Your task to perform on an android device: Open Wikipedia Image 0: 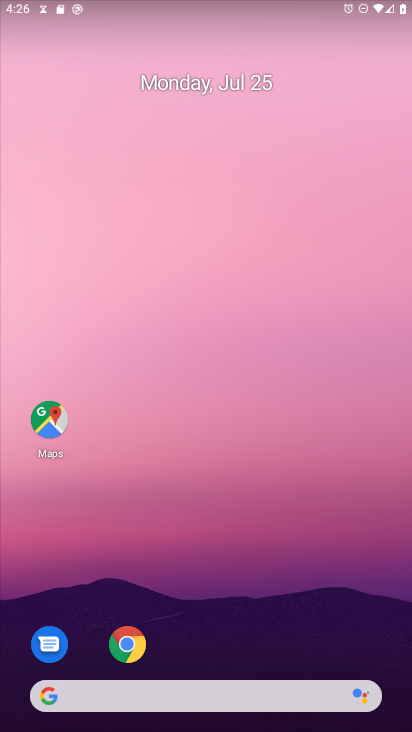
Step 0: press home button
Your task to perform on an android device: Open Wikipedia Image 1: 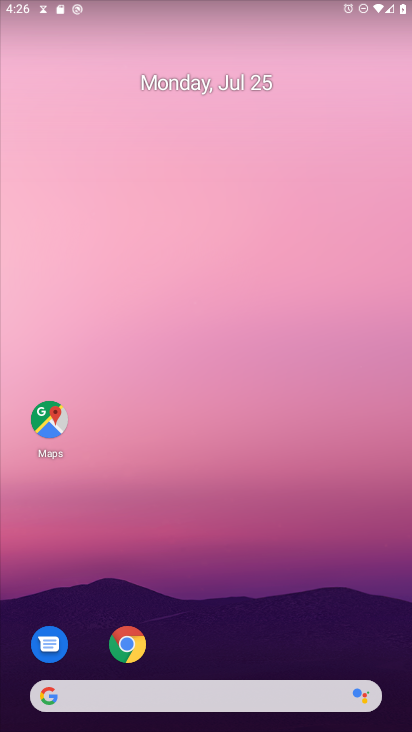
Step 1: click (47, 702)
Your task to perform on an android device: Open Wikipedia Image 2: 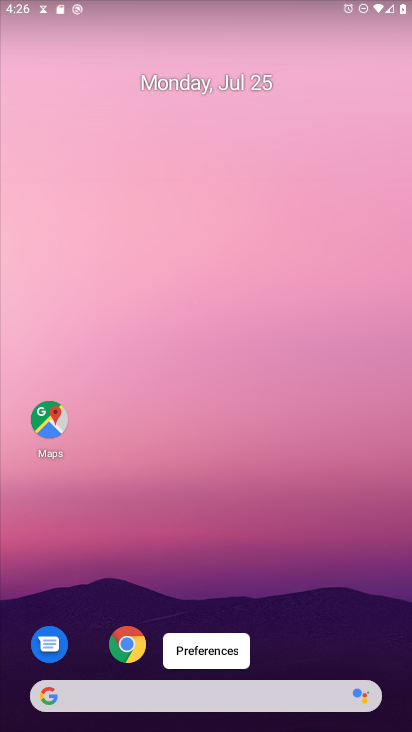
Step 2: click (45, 690)
Your task to perform on an android device: Open Wikipedia Image 3: 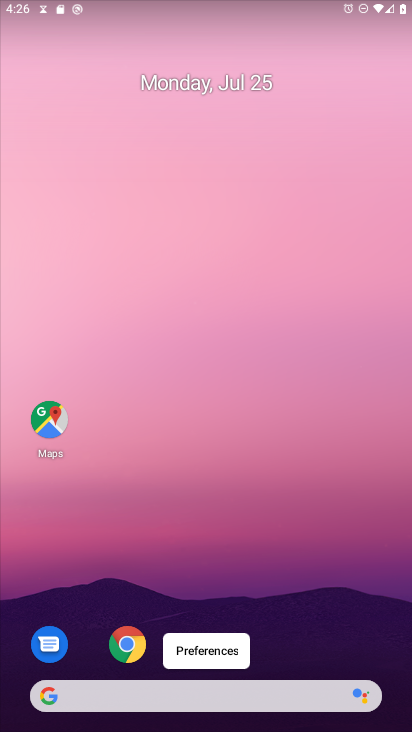
Step 3: click (50, 698)
Your task to perform on an android device: Open Wikipedia Image 4: 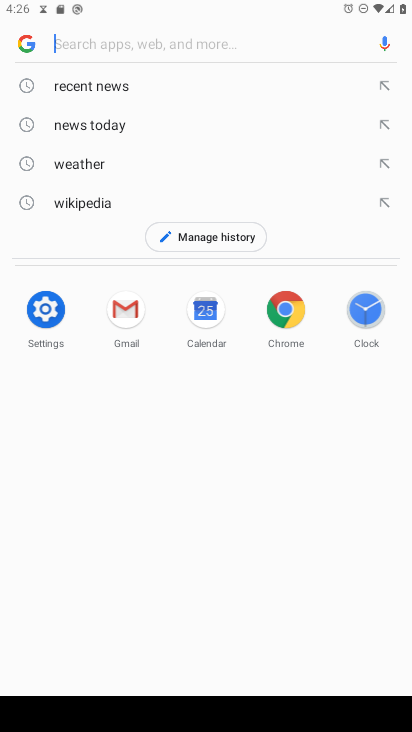
Step 4: type "Wikipedia"
Your task to perform on an android device: Open Wikipedia Image 5: 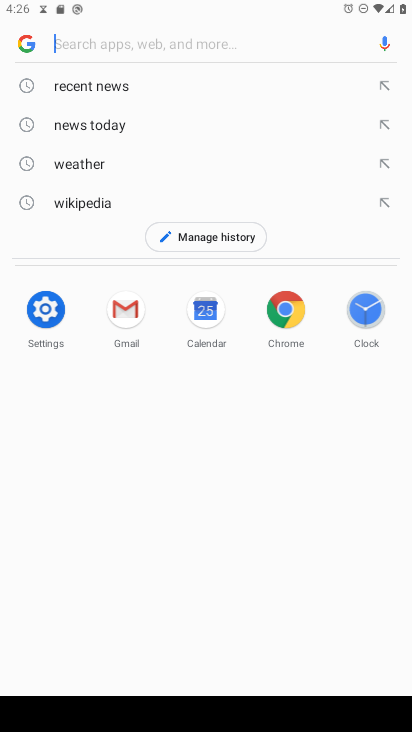
Step 5: click (112, 45)
Your task to perform on an android device: Open Wikipedia Image 6: 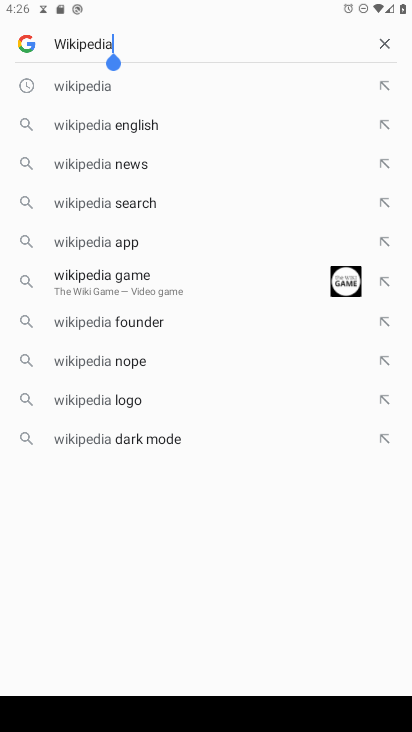
Step 6: click (105, 81)
Your task to perform on an android device: Open Wikipedia Image 7: 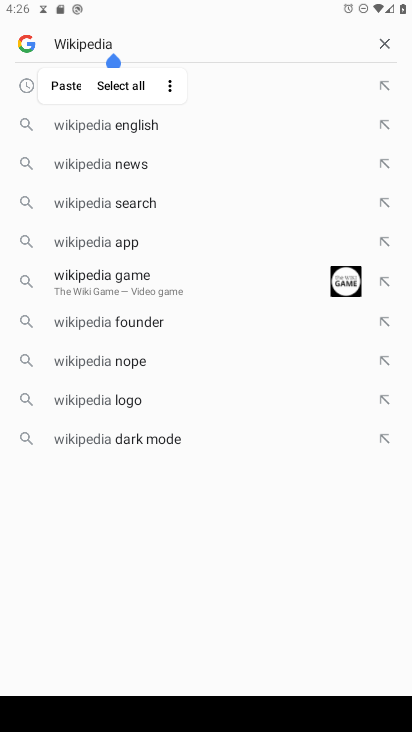
Step 7: click (219, 47)
Your task to perform on an android device: Open Wikipedia Image 8: 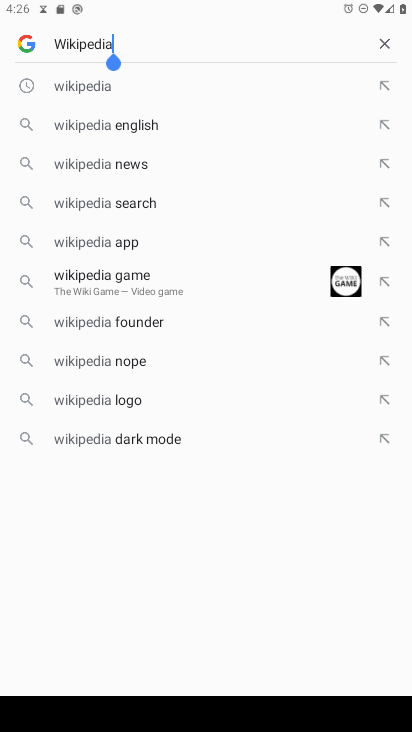
Step 8: click (70, 80)
Your task to perform on an android device: Open Wikipedia Image 9: 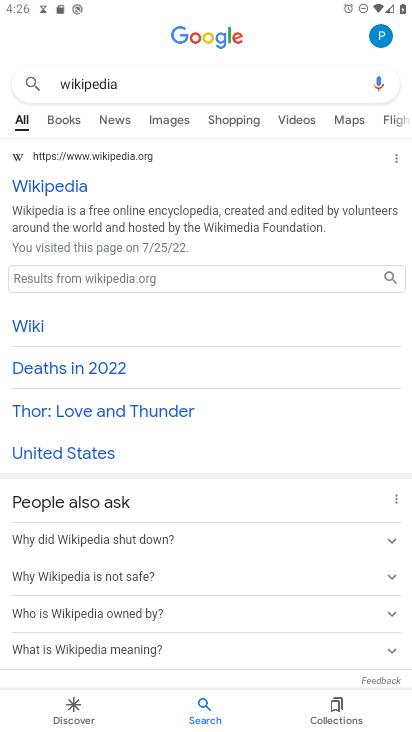
Step 9: click (45, 187)
Your task to perform on an android device: Open Wikipedia Image 10: 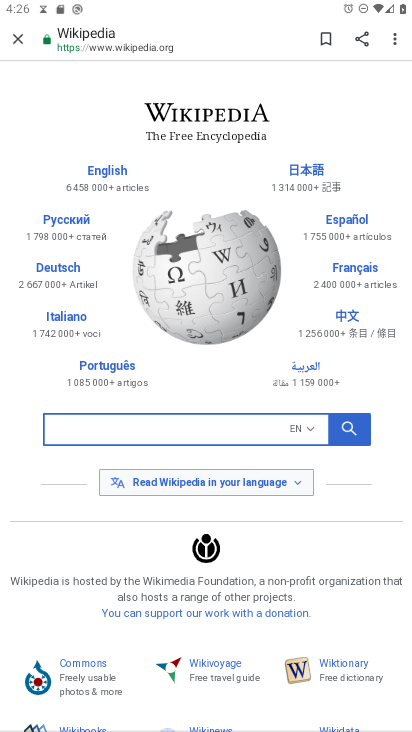
Step 10: task complete